Your task to perform on an android device: Go to wifi settings Image 0: 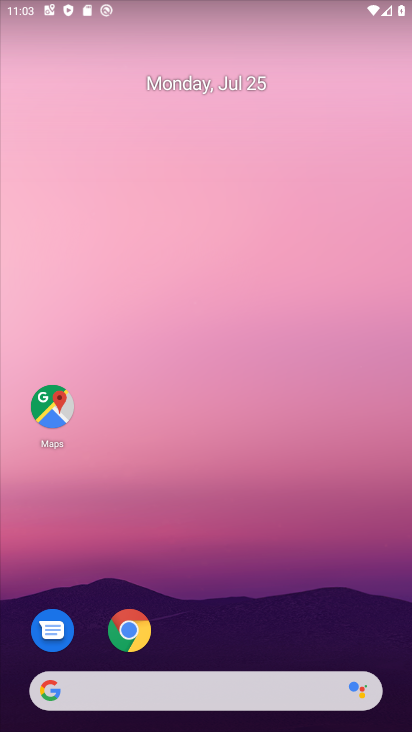
Step 0: press home button
Your task to perform on an android device: Go to wifi settings Image 1: 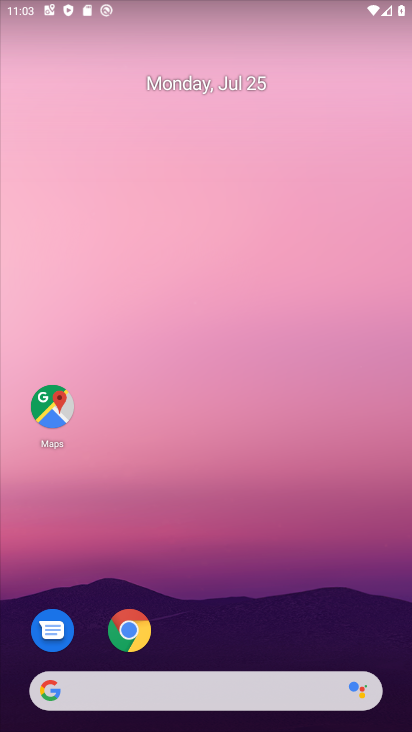
Step 1: drag from (343, 622) to (316, 102)
Your task to perform on an android device: Go to wifi settings Image 2: 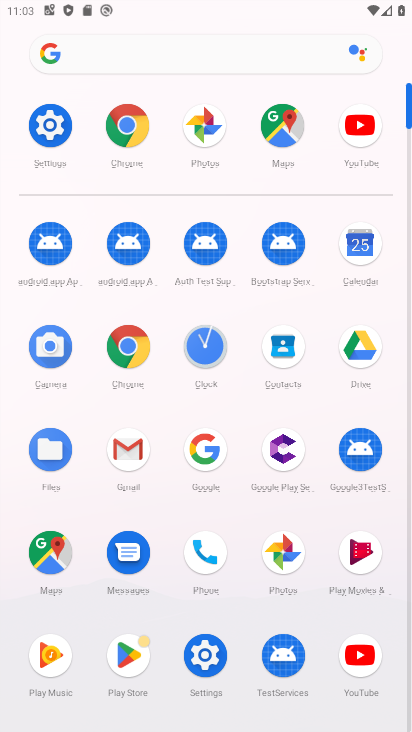
Step 2: click (52, 122)
Your task to perform on an android device: Go to wifi settings Image 3: 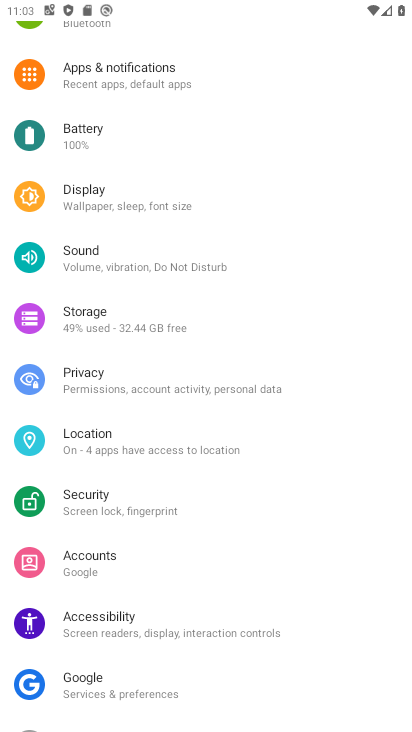
Step 3: drag from (310, 551) to (323, 423)
Your task to perform on an android device: Go to wifi settings Image 4: 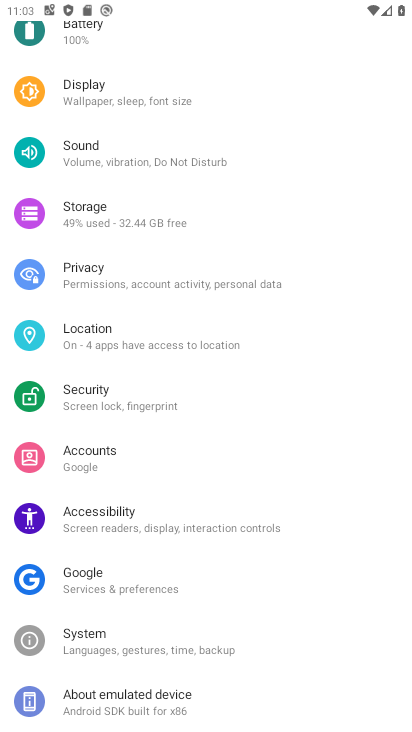
Step 4: drag from (297, 435) to (303, 325)
Your task to perform on an android device: Go to wifi settings Image 5: 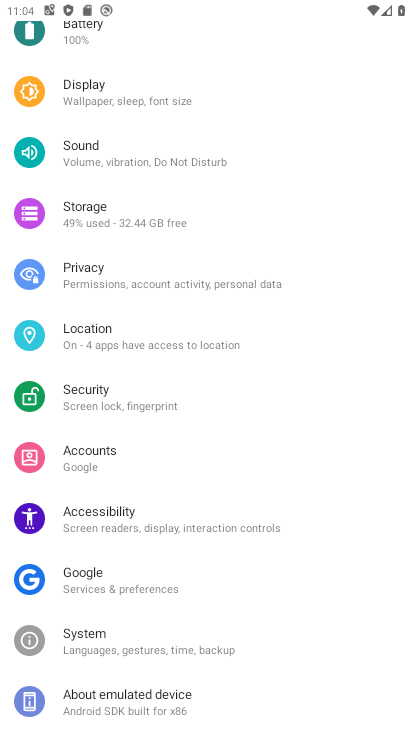
Step 5: press home button
Your task to perform on an android device: Go to wifi settings Image 6: 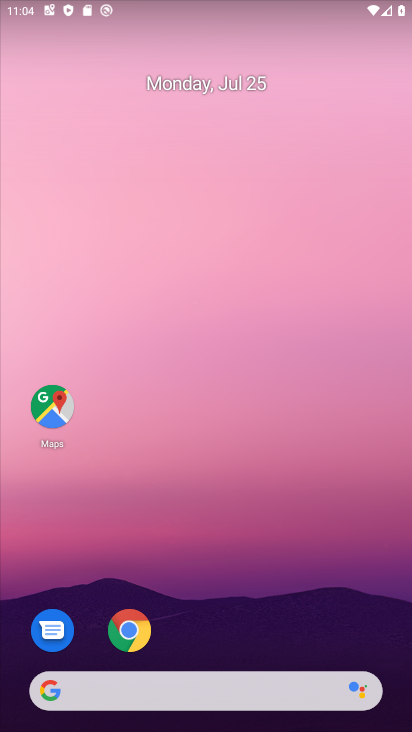
Step 6: drag from (294, 636) to (308, 164)
Your task to perform on an android device: Go to wifi settings Image 7: 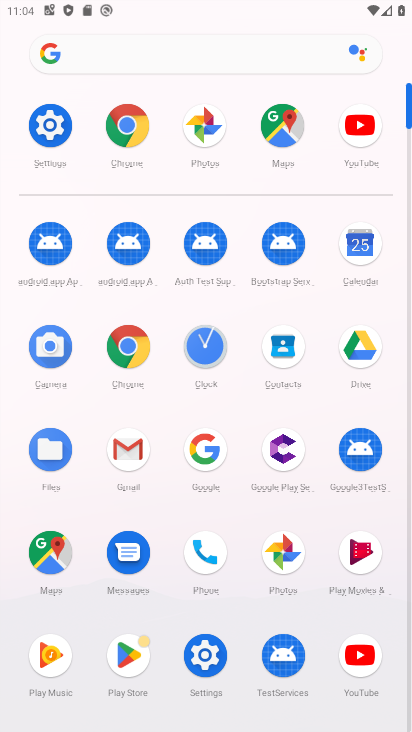
Step 7: drag from (316, 595) to (315, 427)
Your task to perform on an android device: Go to wifi settings Image 8: 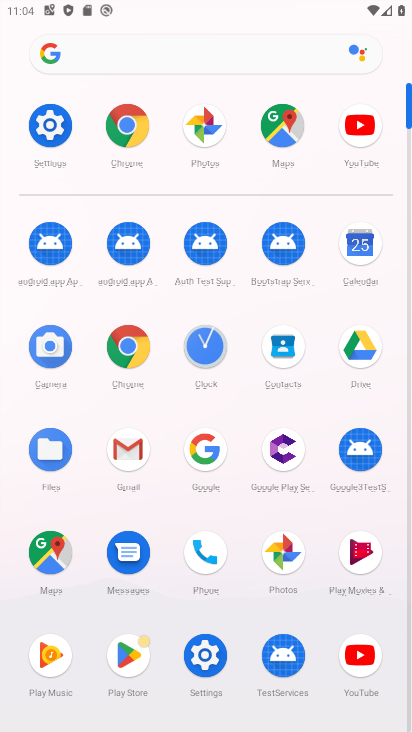
Step 8: click (213, 658)
Your task to perform on an android device: Go to wifi settings Image 9: 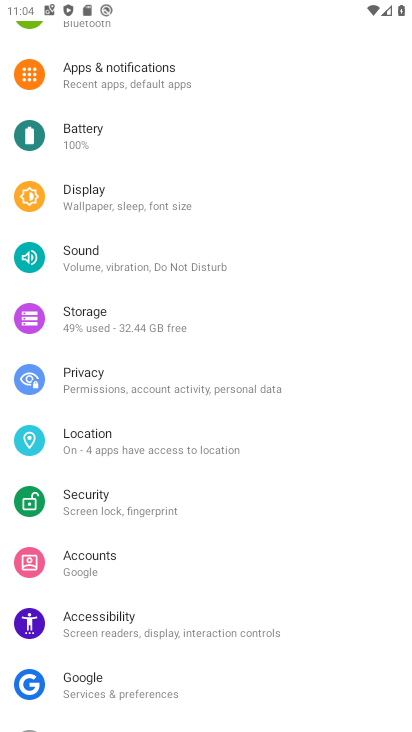
Step 9: drag from (321, 591) to (317, 413)
Your task to perform on an android device: Go to wifi settings Image 10: 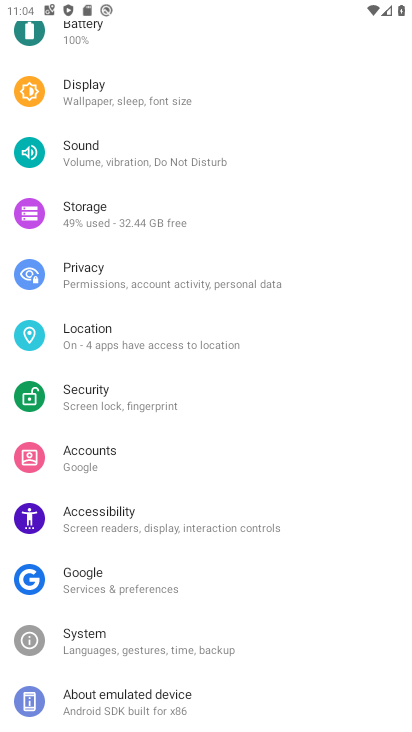
Step 10: drag from (318, 284) to (328, 367)
Your task to perform on an android device: Go to wifi settings Image 11: 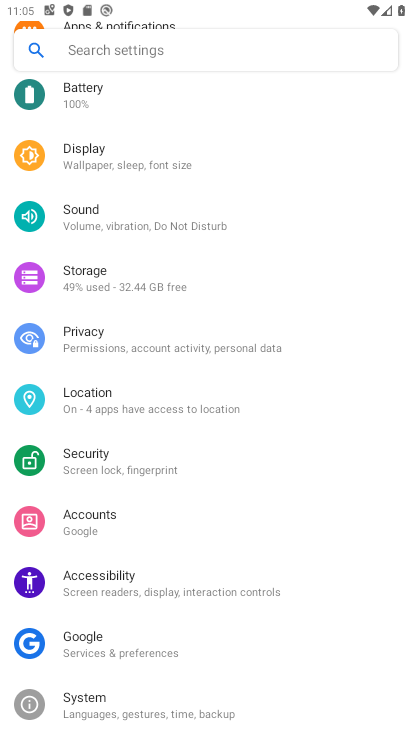
Step 11: drag from (352, 214) to (354, 332)
Your task to perform on an android device: Go to wifi settings Image 12: 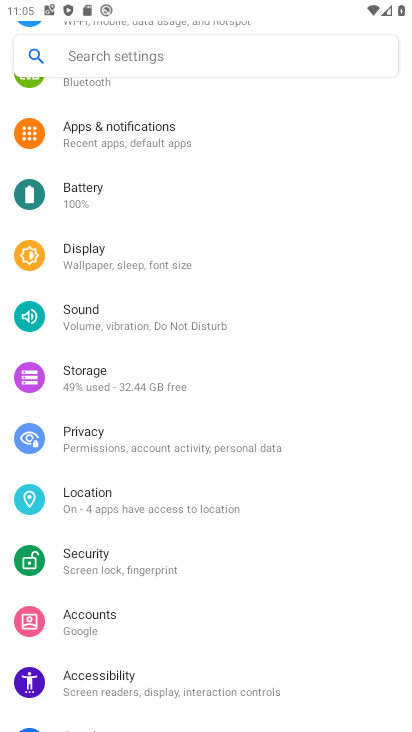
Step 12: drag from (361, 187) to (354, 373)
Your task to perform on an android device: Go to wifi settings Image 13: 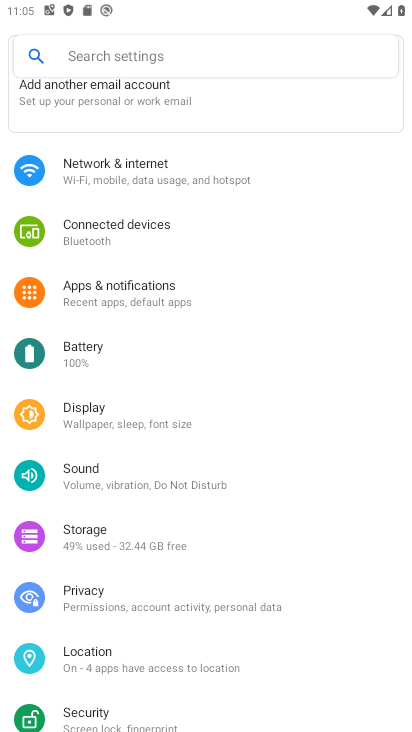
Step 13: drag from (311, 309) to (311, 451)
Your task to perform on an android device: Go to wifi settings Image 14: 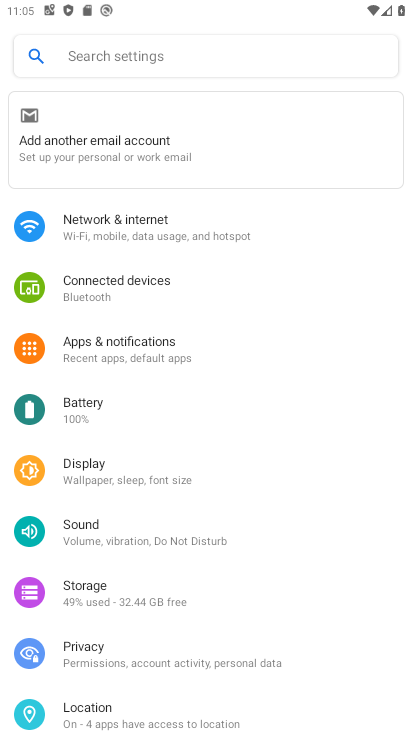
Step 14: click (199, 230)
Your task to perform on an android device: Go to wifi settings Image 15: 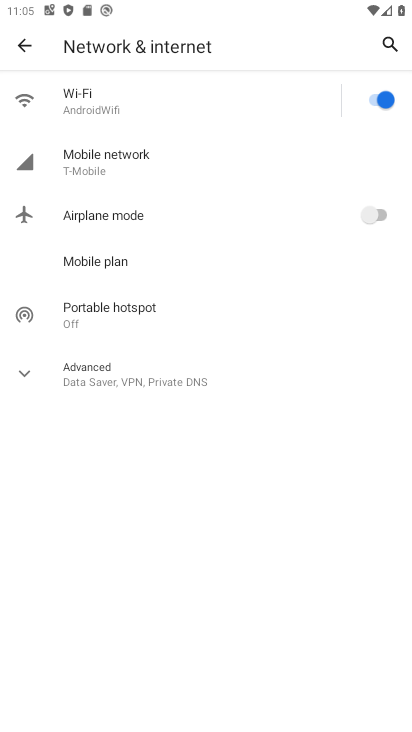
Step 15: click (175, 100)
Your task to perform on an android device: Go to wifi settings Image 16: 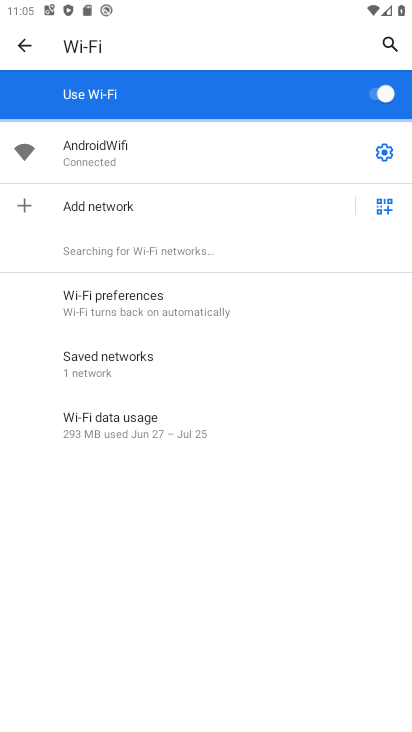
Step 16: task complete